Your task to perform on an android device: make emails show in primary in the gmail app Image 0: 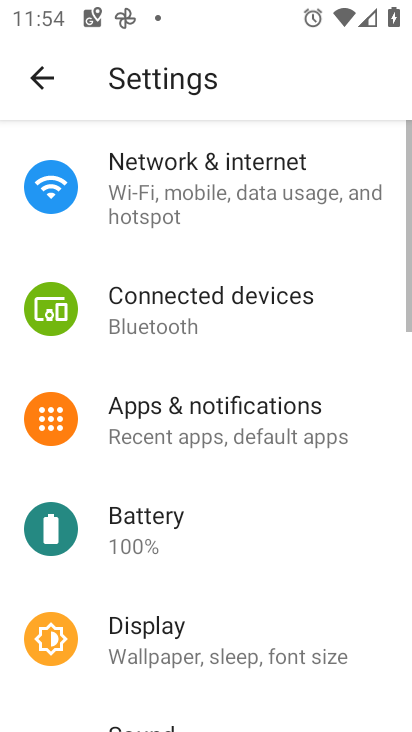
Step 0: press home button
Your task to perform on an android device: make emails show in primary in the gmail app Image 1: 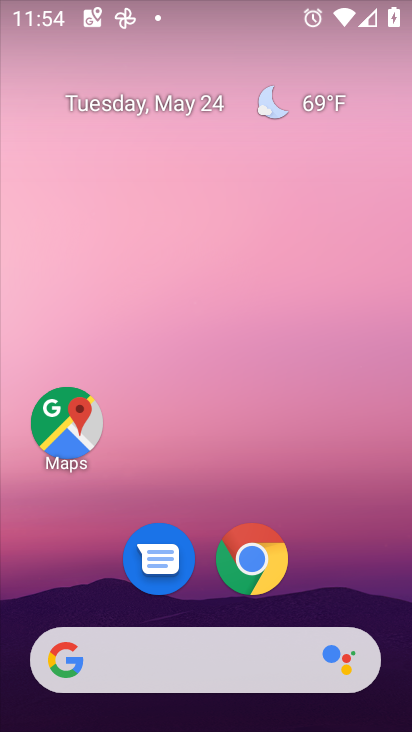
Step 1: drag from (380, 608) to (300, 116)
Your task to perform on an android device: make emails show in primary in the gmail app Image 2: 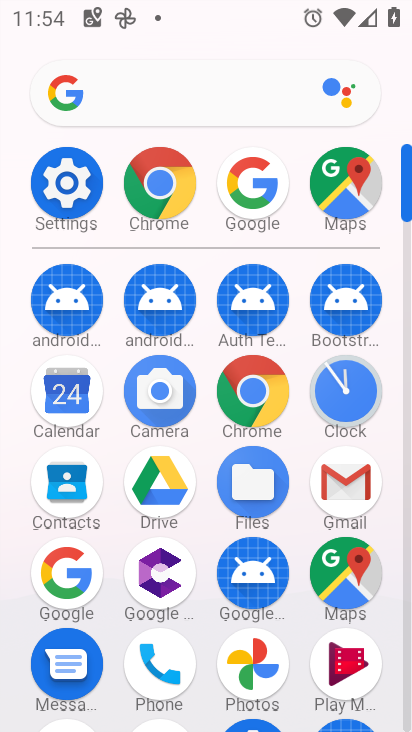
Step 2: click (332, 473)
Your task to perform on an android device: make emails show in primary in the gmail app Image 3: 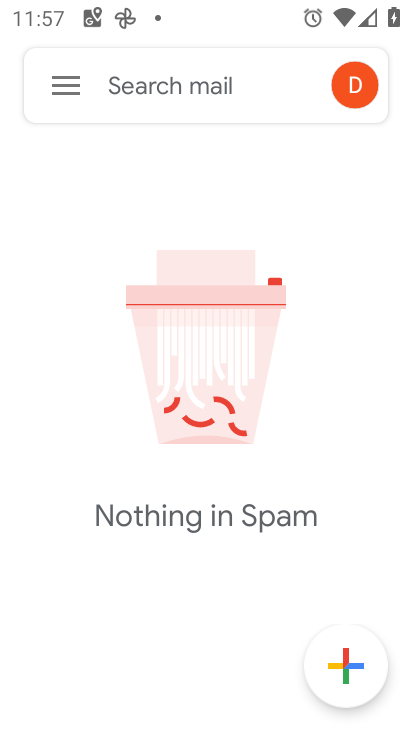
Step 3: task complete